Your task to perform on an android device: clear all cookies in the chrome app Image 0: 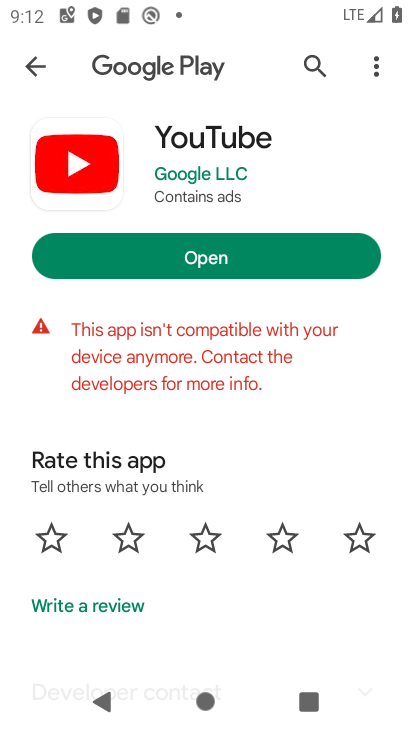
Step 0: press home button
Your task to perform on an android device: clear all cookies in the chrome app Image 1: 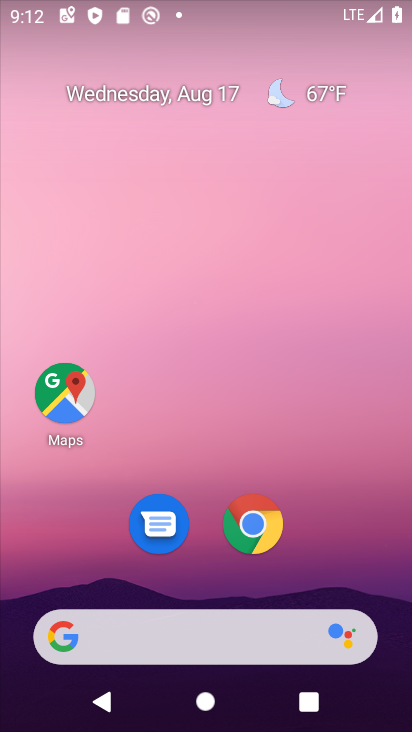
Step 1: click (255, 519)
Your task to perform on an android device: clear all cookies in the chrome app Image 2: 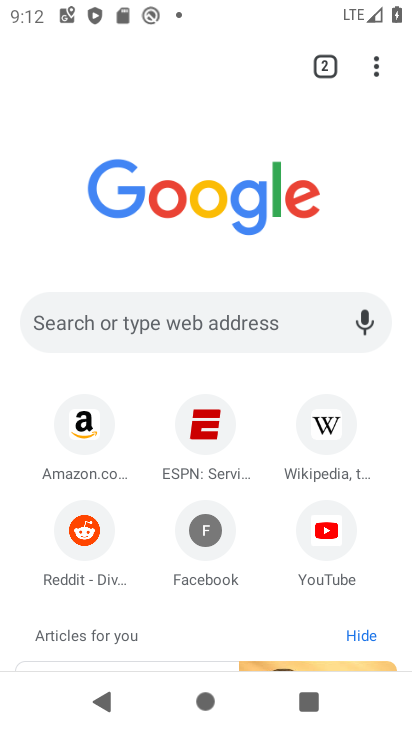
Step 2: click (374, 70)
Your task to perform on an android device: clear all cookies in the chrome app Image 3: 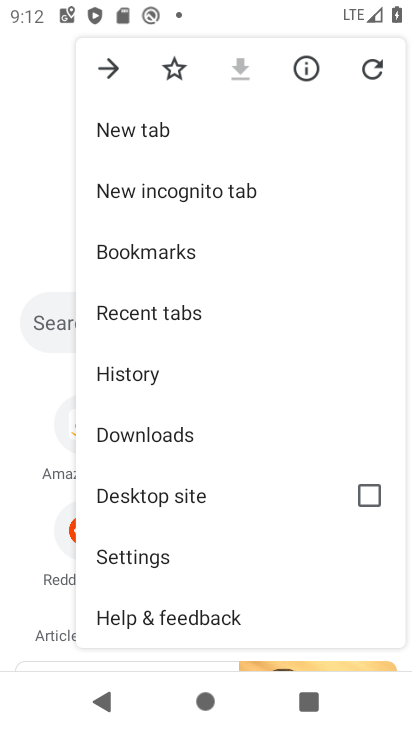
Step 3: click (142, 372)
Your task to perform on an android device: clear all cookies in the chrome app Image 4: 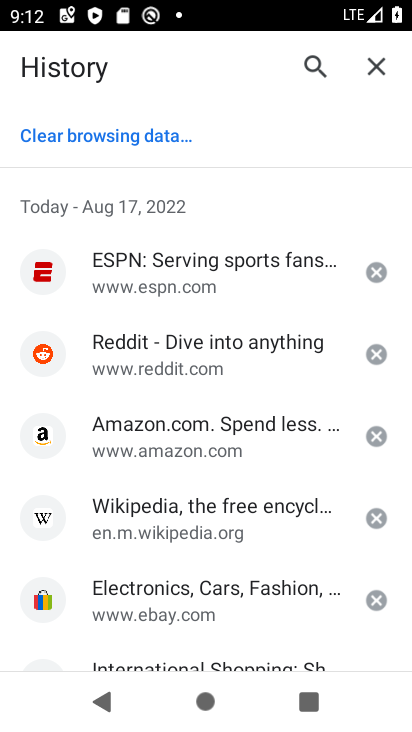
Step 4: click (129, 130)
Your task to perform on an android device: clear all cookies in the chrome app Image 5: 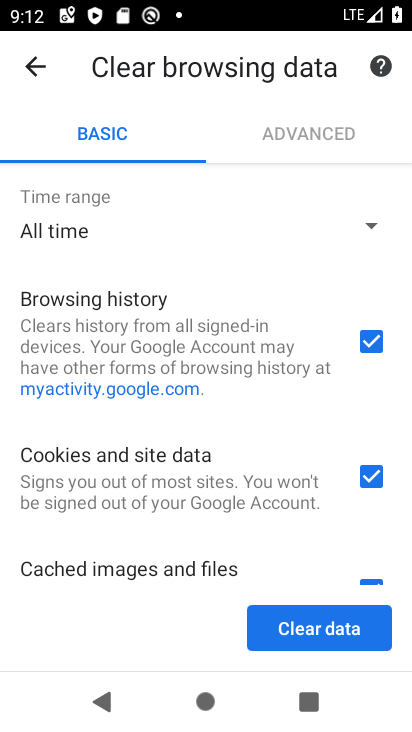
Step 5: click (372, 336)
Your task to perform on an android device: clear all cookies in the chrome app Image 6: 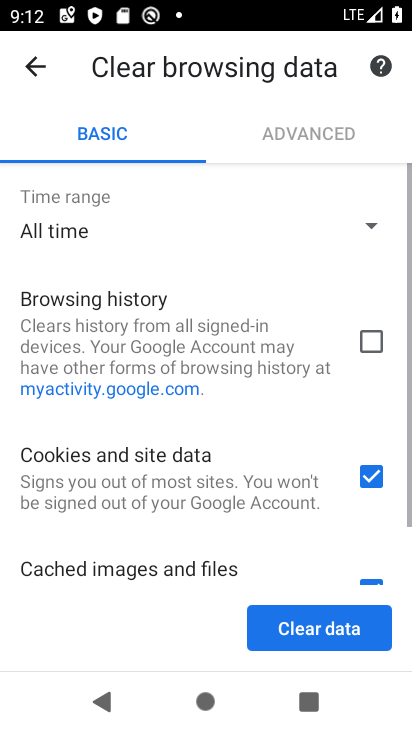
Step 6: drag from (272, 444) to (287, 251)
Your task to perform on an android device: clear all cookies in the chrome app Image 7: 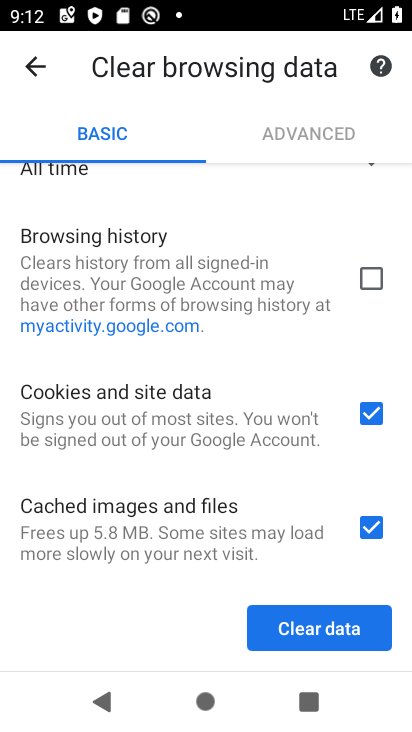
Step 7: click (376, 518)
Your task to perform on an android device: clear all cookies in the chrome app Image 8: 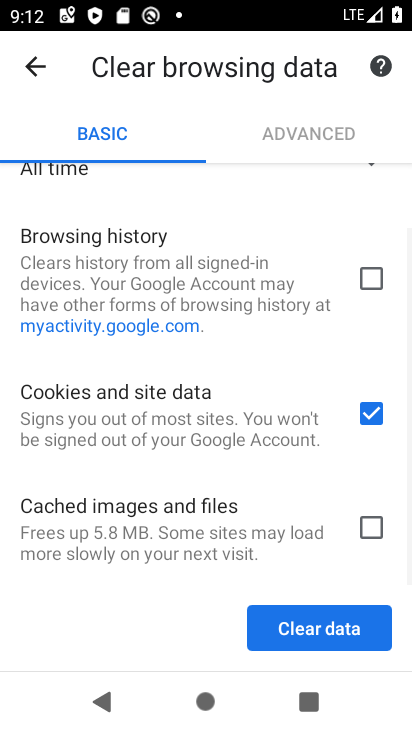
Step 8: click (349, 622)
Your task to perform on an android device: clear all cookies in the chrome app Image 9: 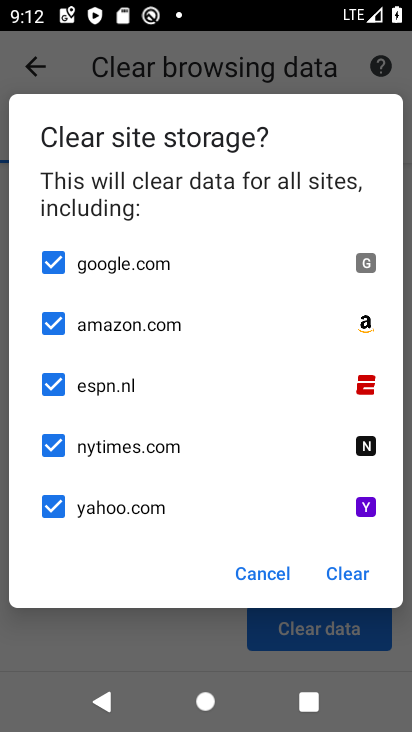
Step 9: click (348, 574)
Your task to perform on an android device: clear all cookies in the chrome app Image 10: 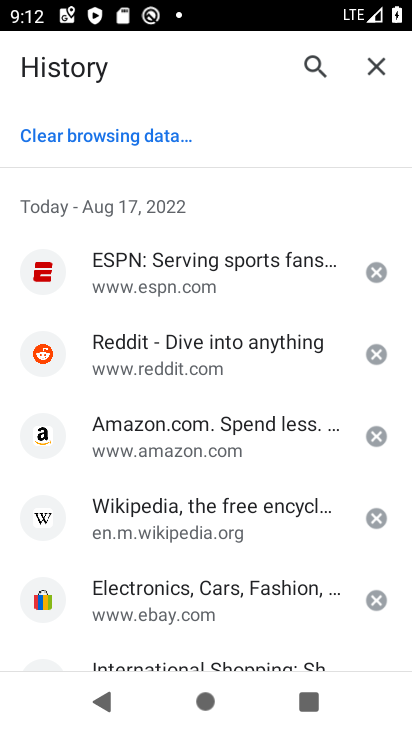
Step 10: task complete